Your task to perform on an android device: check google app version Image 0: 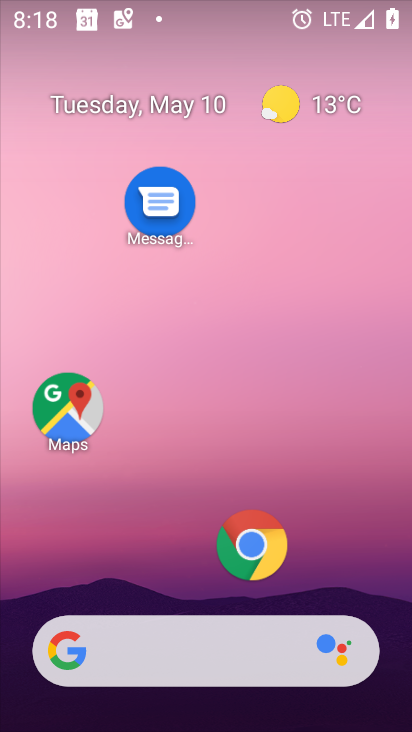
Step 0: press home button
Your task to perform on an android device: check google app version Image 1: 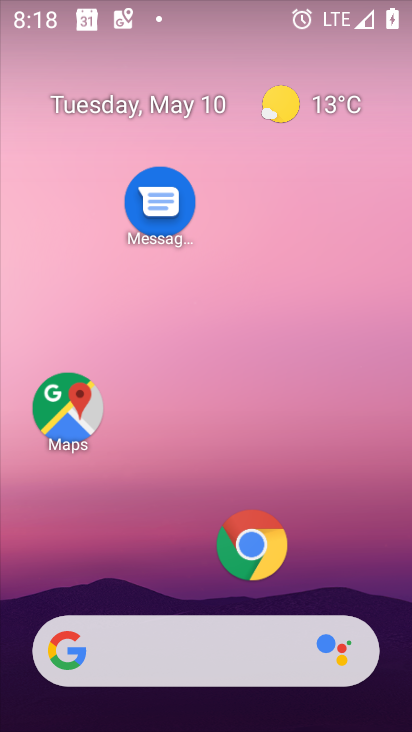
Step 1: drag from (200, 584) to (194, 38)
Your task to perform on an android device: check google app version Image 2: 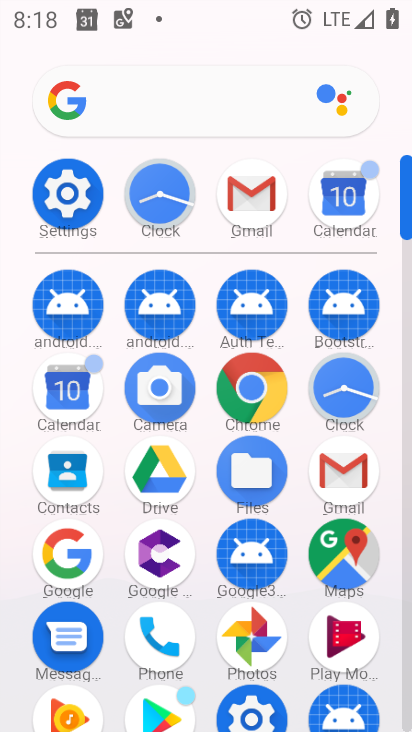
Step 2: click (65, 547)
Your task to perform on an android device: check google app version Image 3: 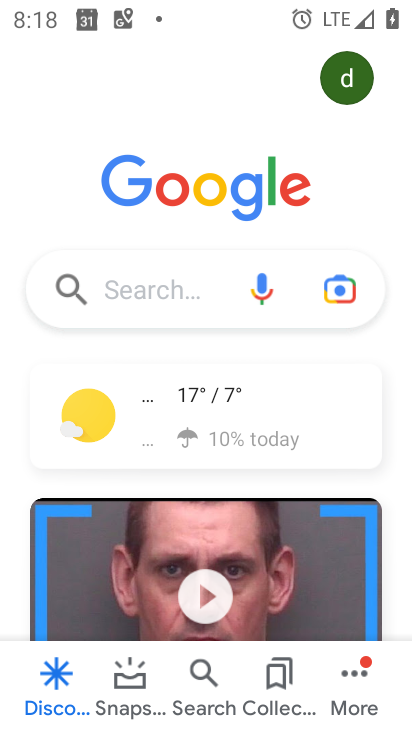
Step 3: click (352, 677)
Your task to perform on an android device: check google app version Image 4: 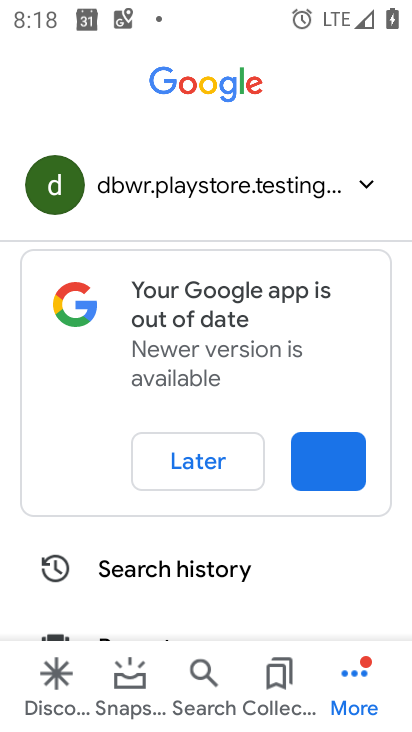
Step 4: click (202, 467)
Your task to perform on an android device: check google app version Image 5: 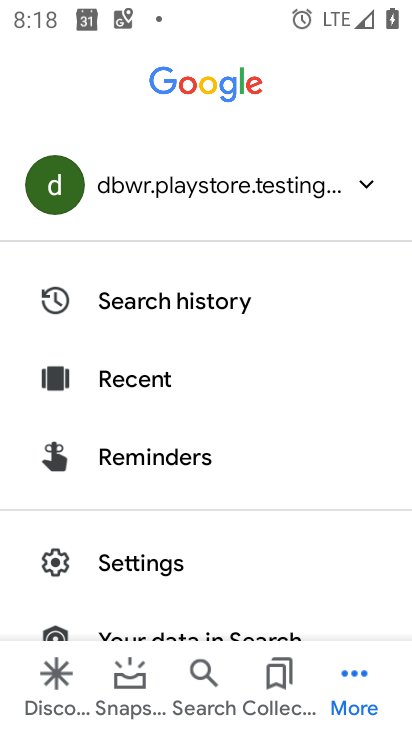
Step 5: click (129, 562)
Your task to perform on an android device: check google app version Image 6: 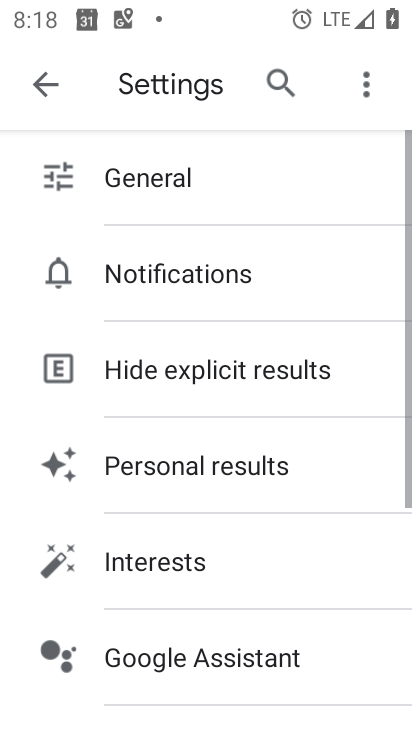
Step 6: drag from (191, 642) to (188, 214)
Your task to perform on an android device: check google app version Image 7: 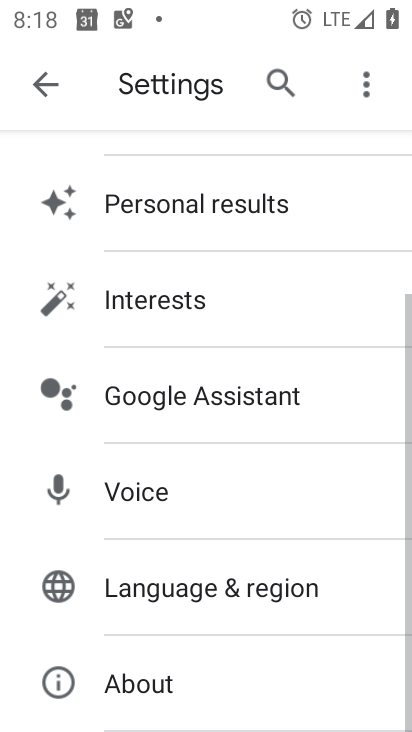
Step 7: click (138, 682)
Your task to perform on an android device: check google app version Image 8: 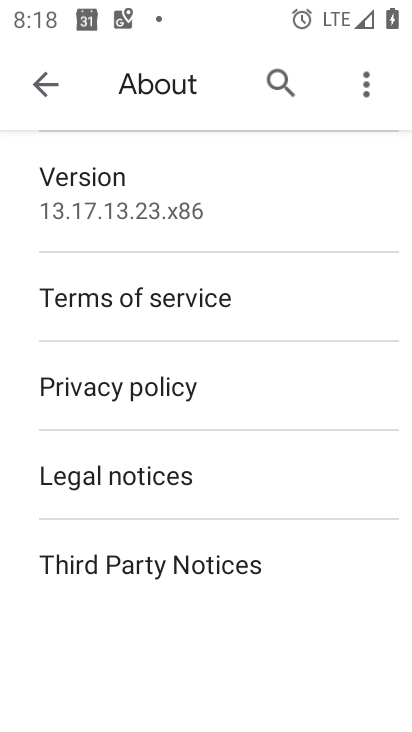
Step 8: click (131, 190)
Your task to perform on an android device: check google app version Image 9: 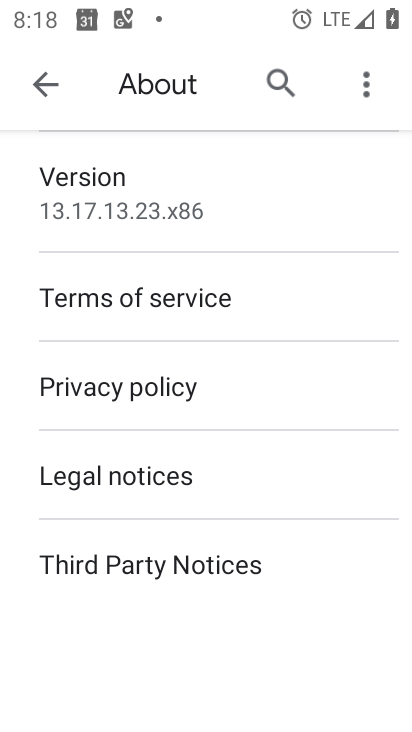
Step 9: task complete